Your task to perform on an android device: Search for the best rated TV on Target Image 0: 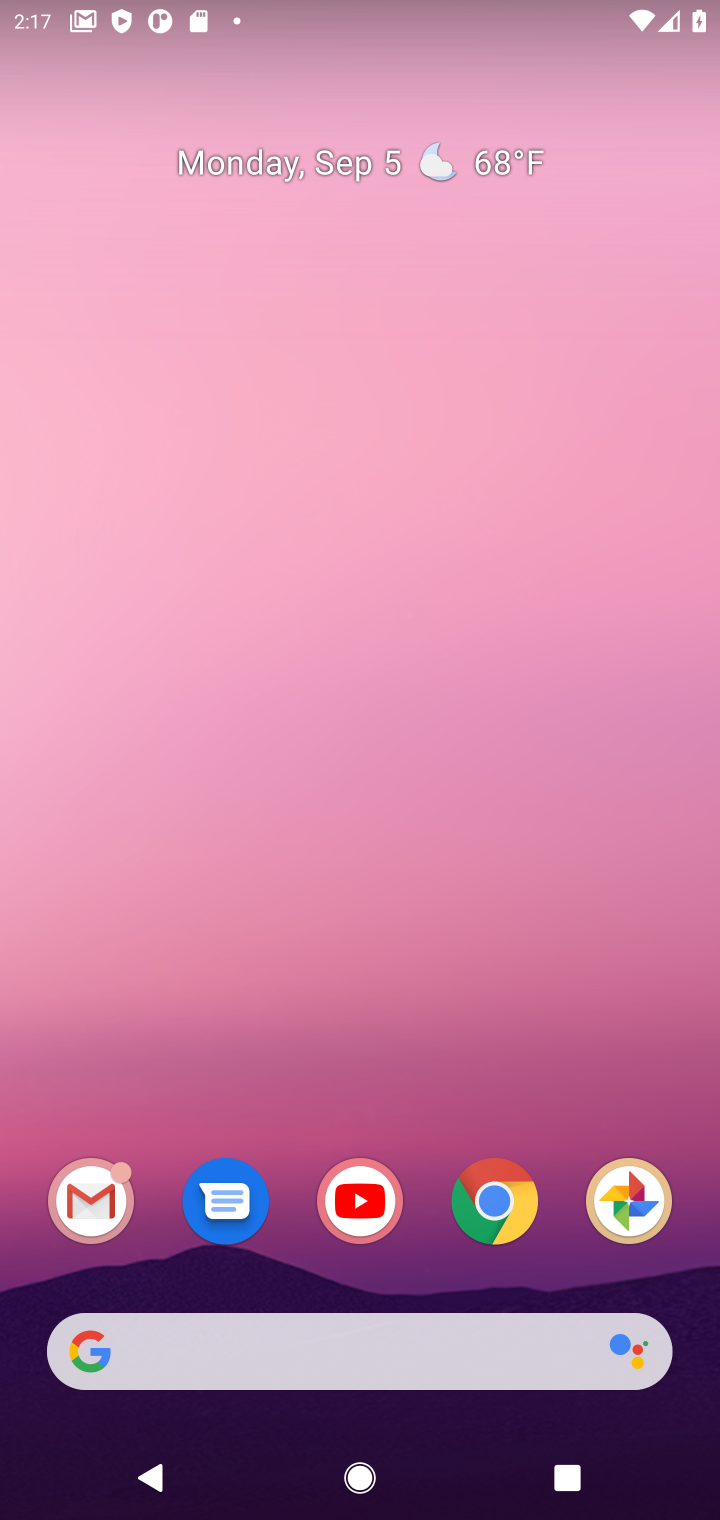
Step 0: click (504, 1206)
Your task to perform on an android device: Search for the best rated TV on Target Image 1: 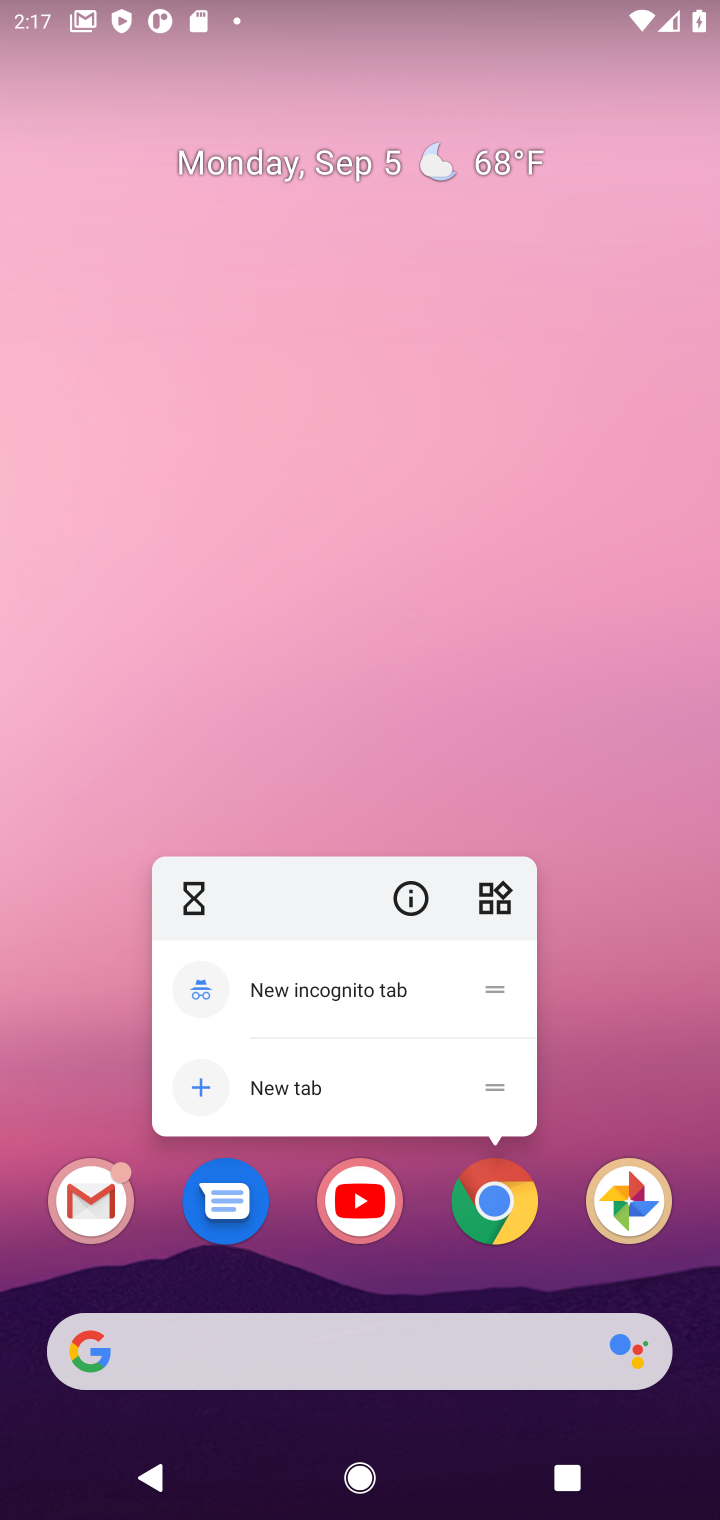
Step 1: click (504, 1206)
Your task to perform on an android device: Search for the best rated TV on Target Image 2: 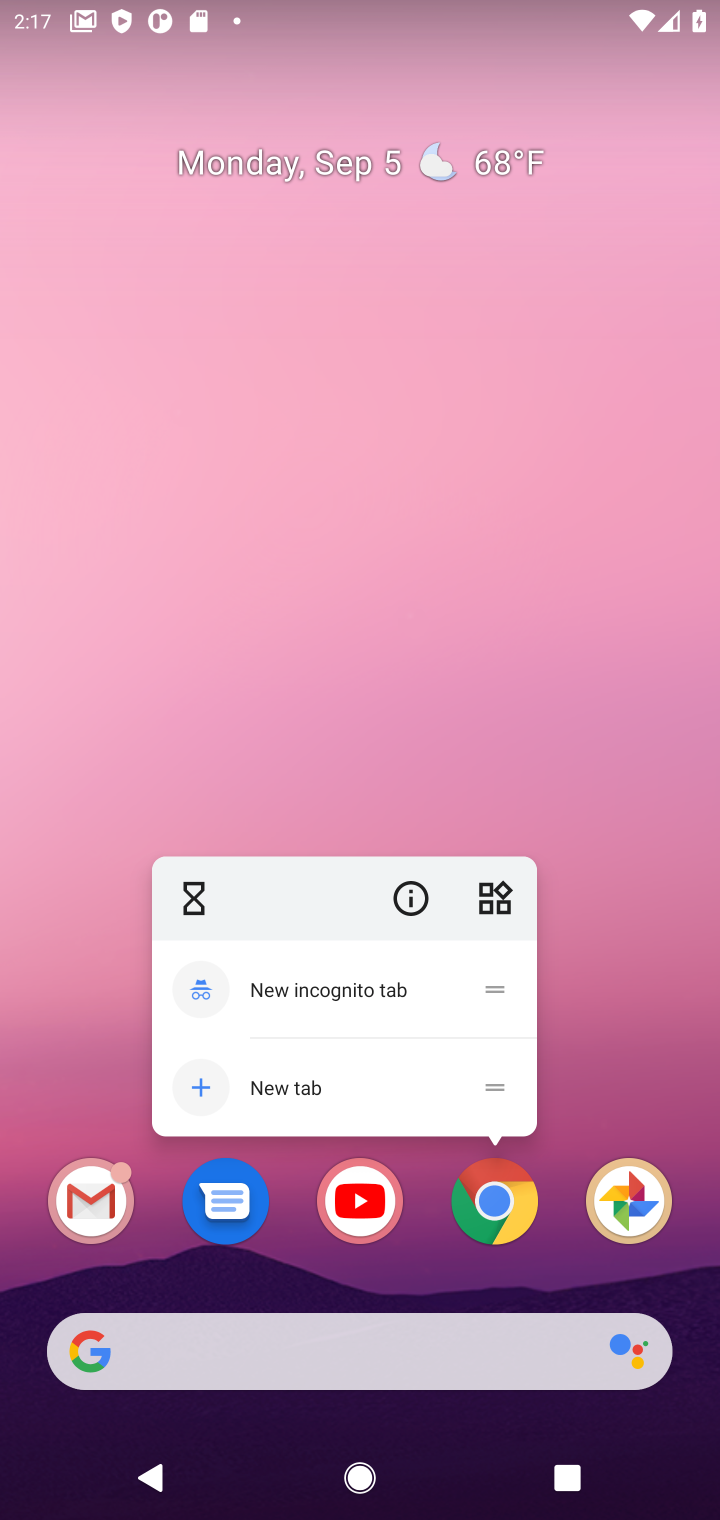
Step 2: click (504, 1206)
Your task to perform on an android device: Search for the best rated TV on Target Image 3: 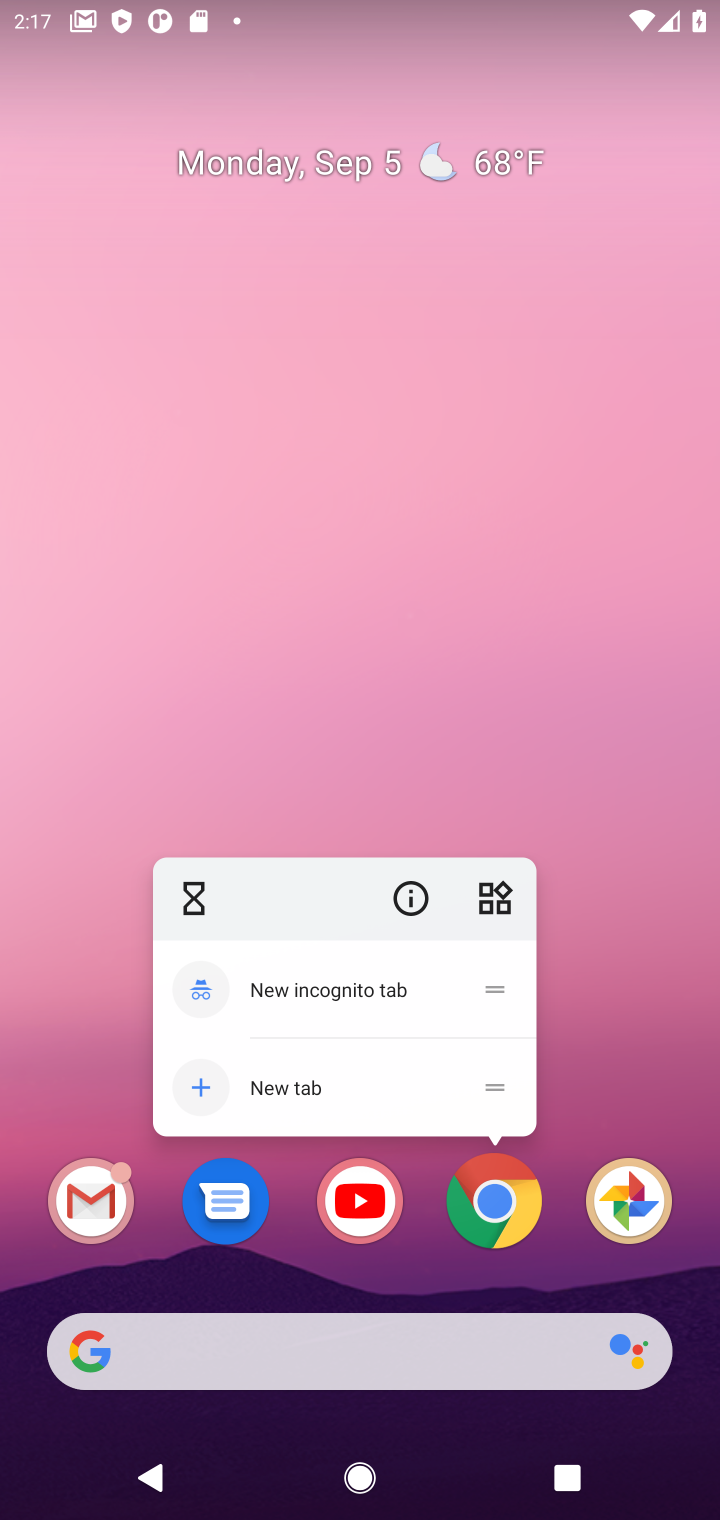
Step 3: click (487, 1196)
Your task to perform on an android device: Search for the best rated TV on Target Image 4: 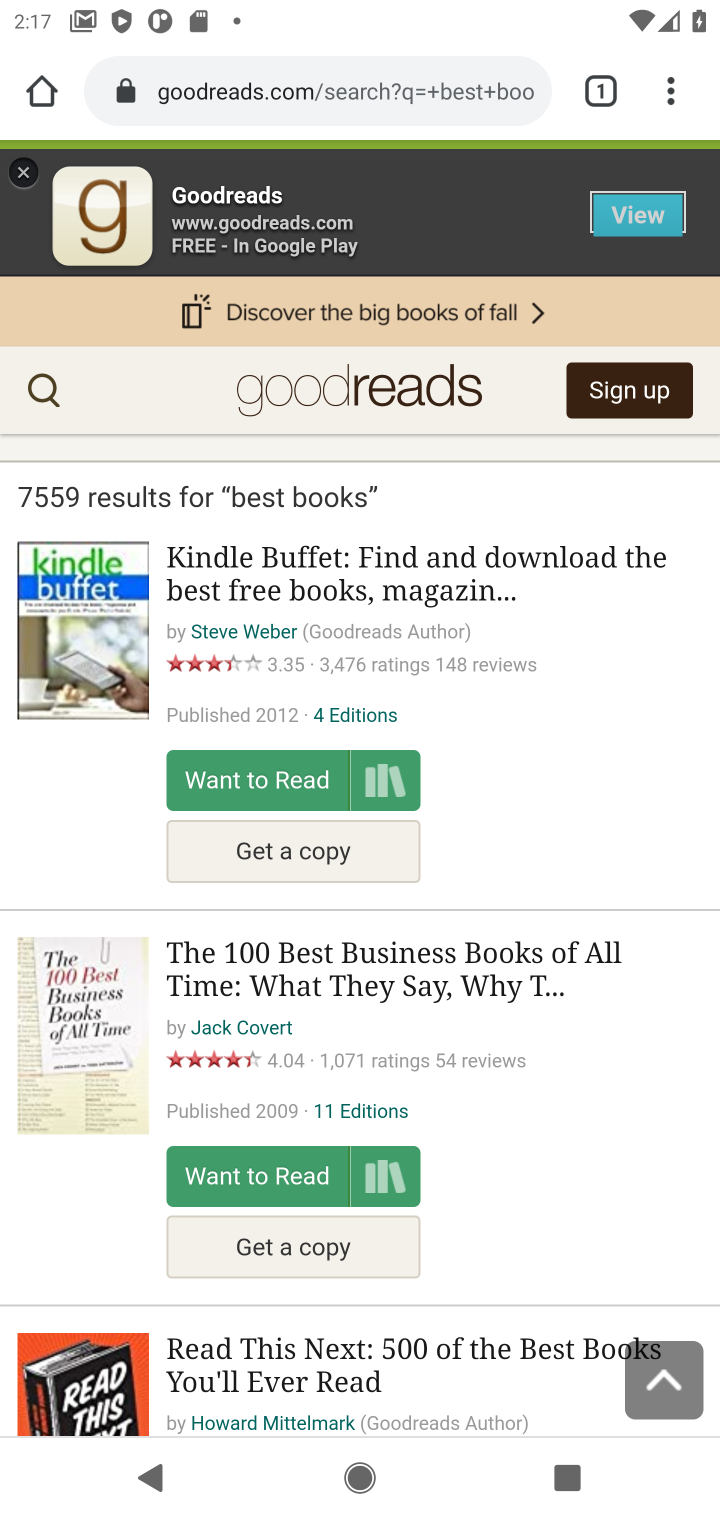
Step 4: click (338, 85)
Your task to perform on an android device: Search for the best rated TV on Target Image 5: 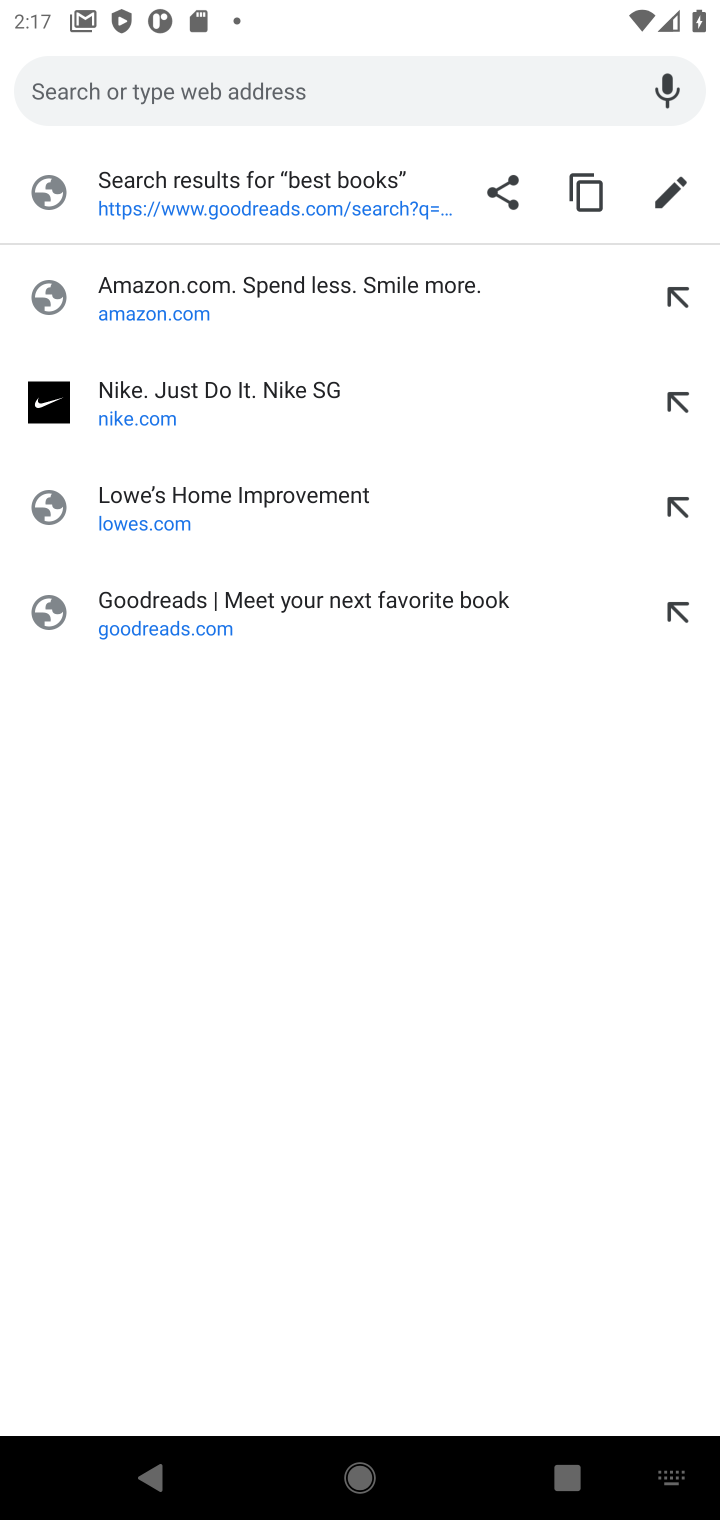
Step 5: type " Target"
Your task to perform on an android device: Search for the best rated TV on Target Image 6: 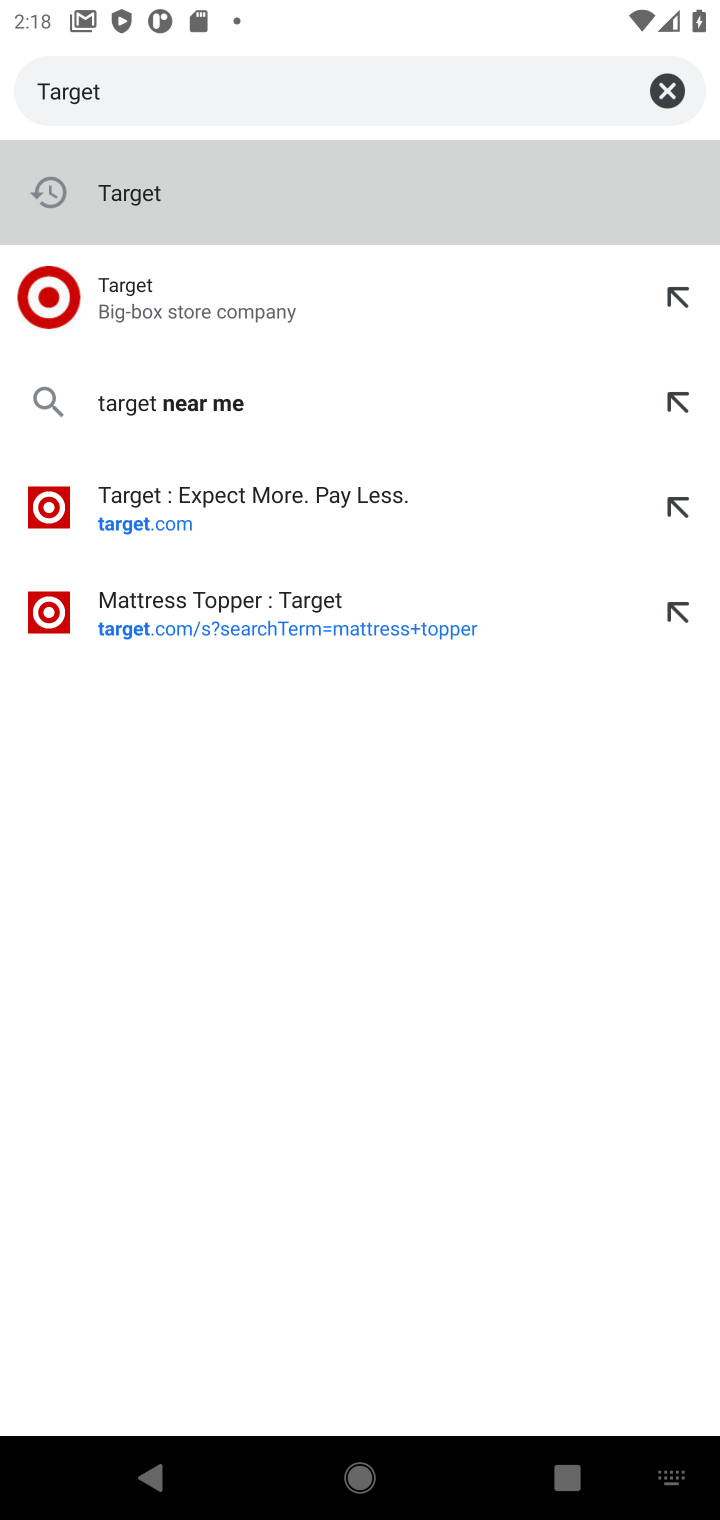
Step 6: press enter
Your task to perform on an android device: Search for the best rated TV on Target Image 7: 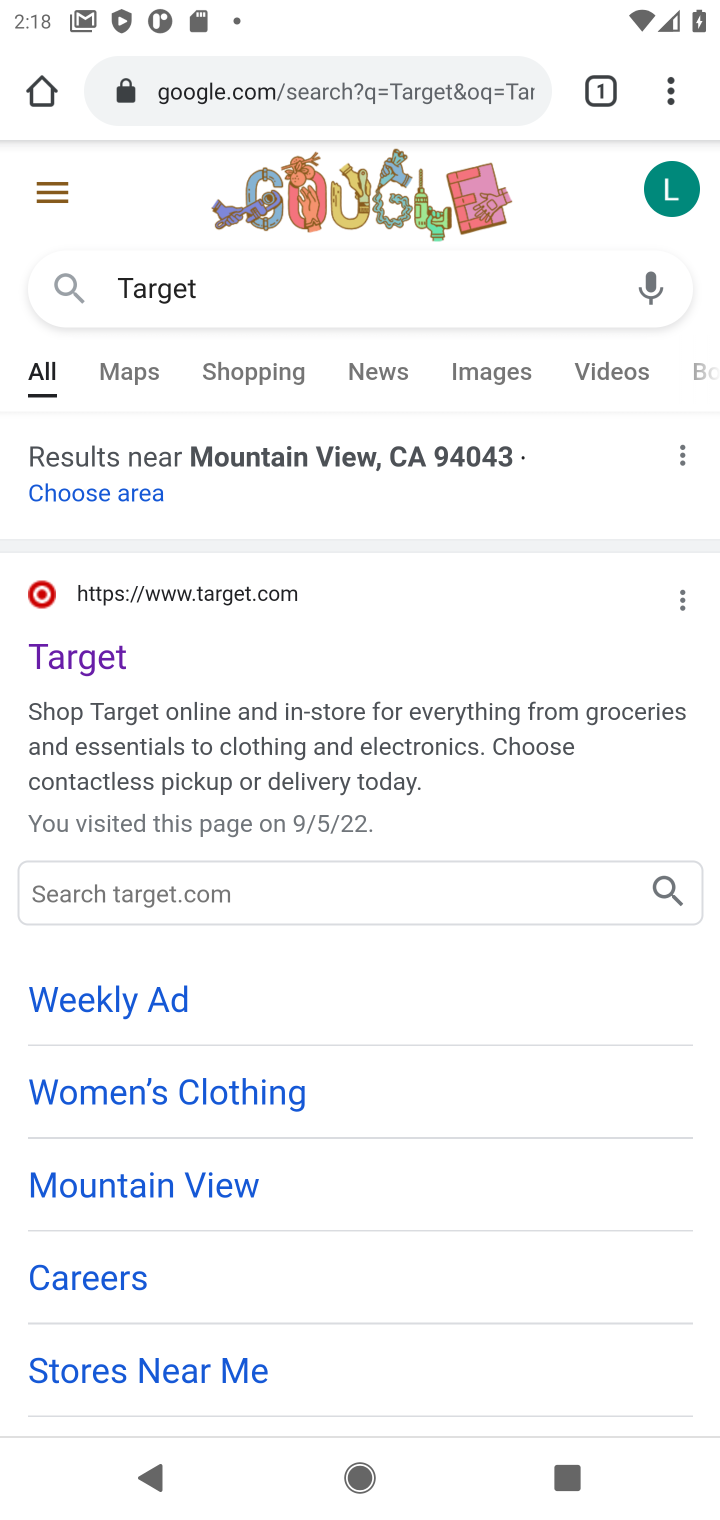
Step 7: click (108, 670)
Your task to perform on an android device: Search for the best rated TV on Target Image 8: 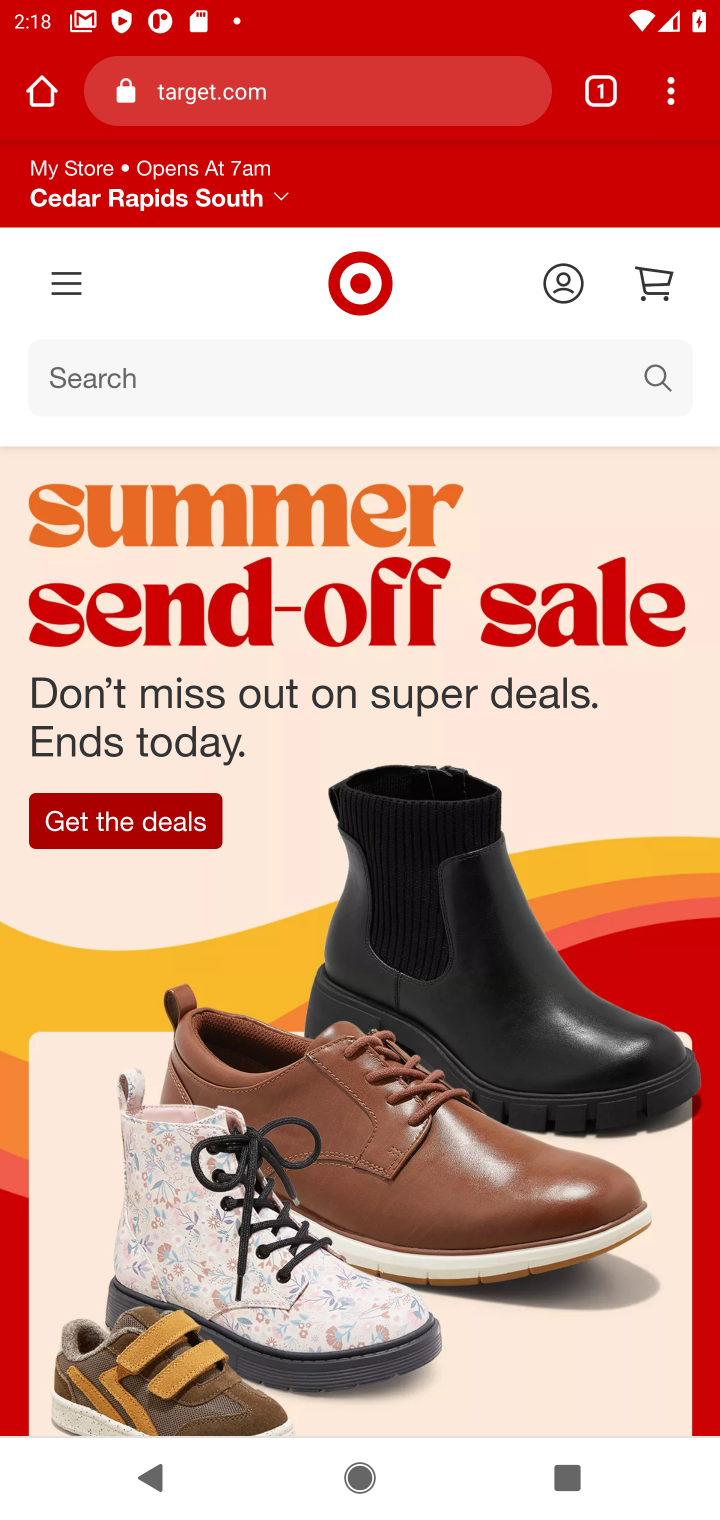
Step 8: click (176, 368)
Your task to perform on an android device: Search for the best rated TV on Target Image 9: 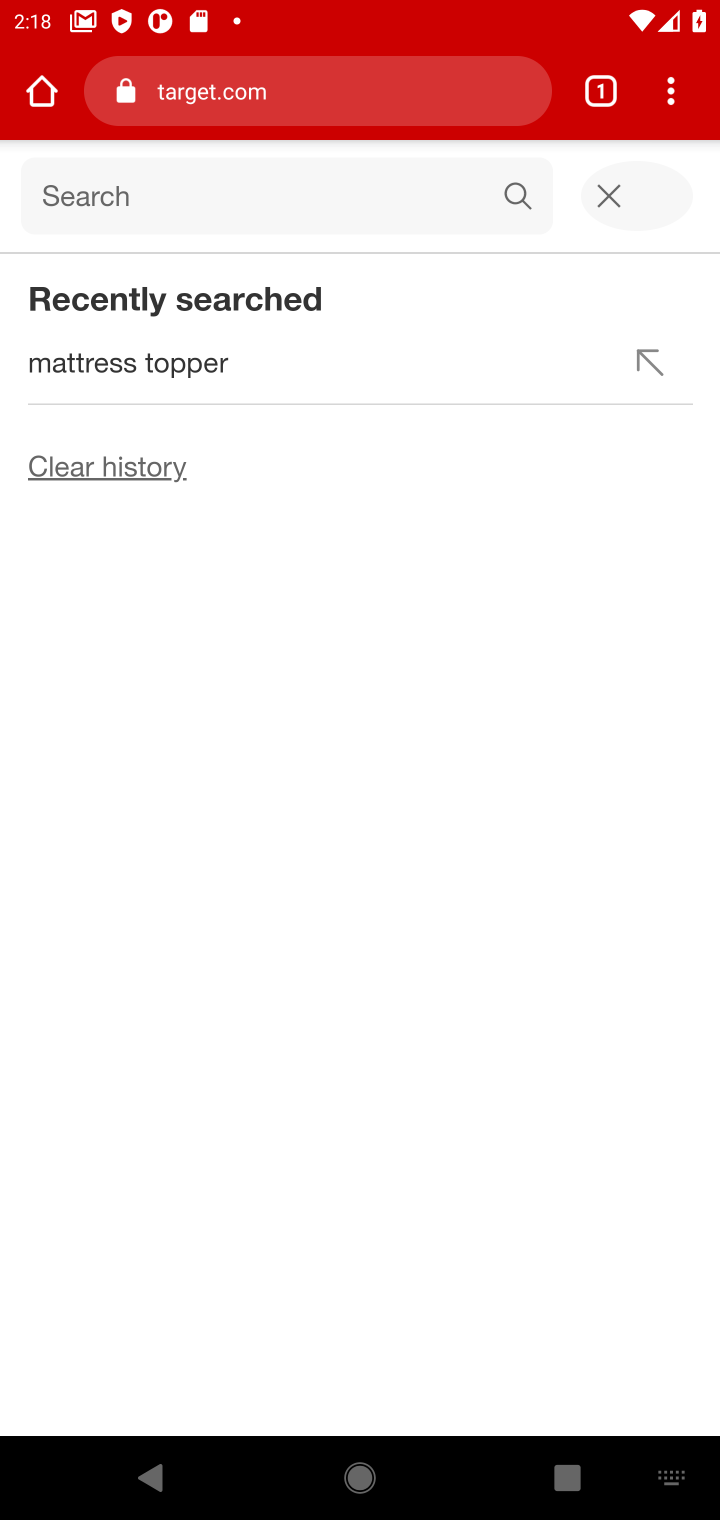
Step 9: type "TV "
Your task to perform on an android device: Search for the best rated TV on Target Image 10: 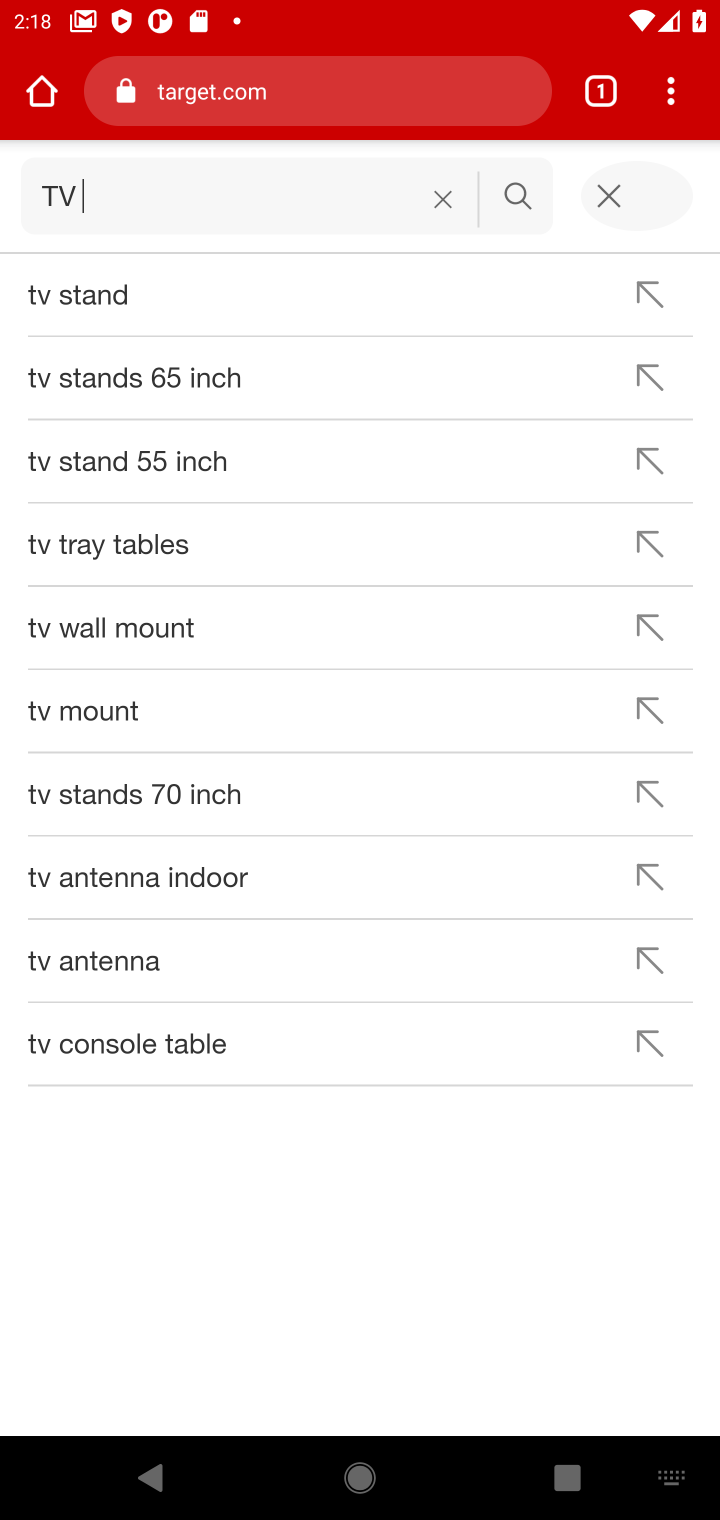
Step 10: press enter
Your task to perform on an android device: Search for the best rated TV on Target Image 11: 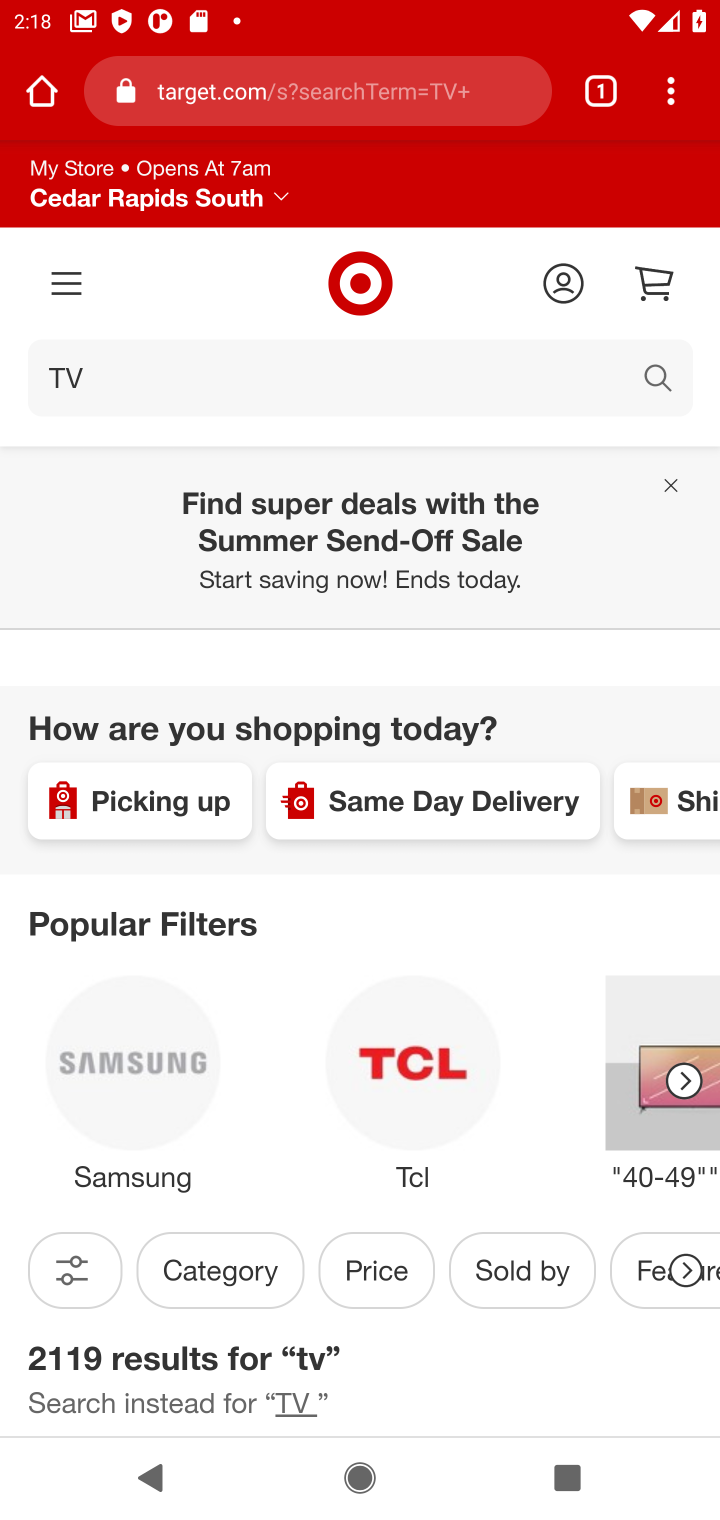
Step 11: task complete